Your task to perform on an android device: open app "Messages" (install if not already installed) and go to login screen Image 0: 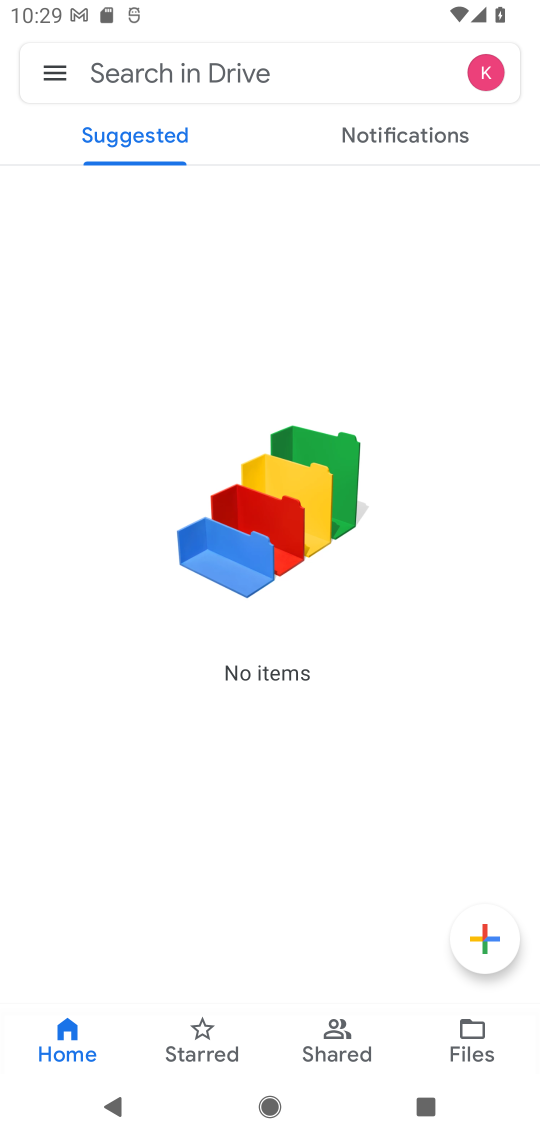
Step 0: task complete